Your task to perform on an android device: Open calendar and show me the first week of next month Image 0: 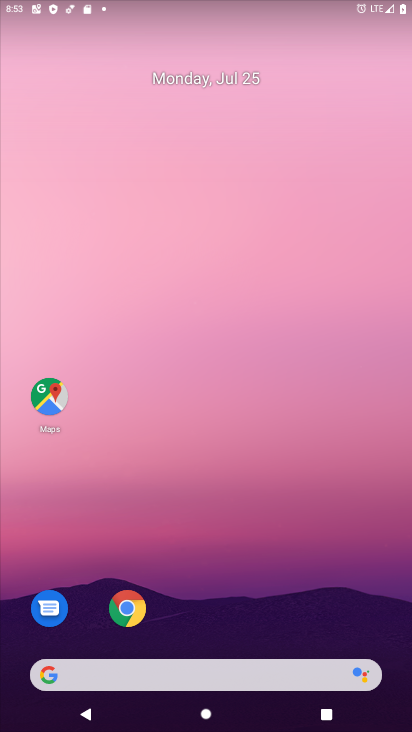
Step 0: drag from (233, 713) to (226, 127)
Your task to perform on an android device: Open calendar and show me the first week of next month Image 1: 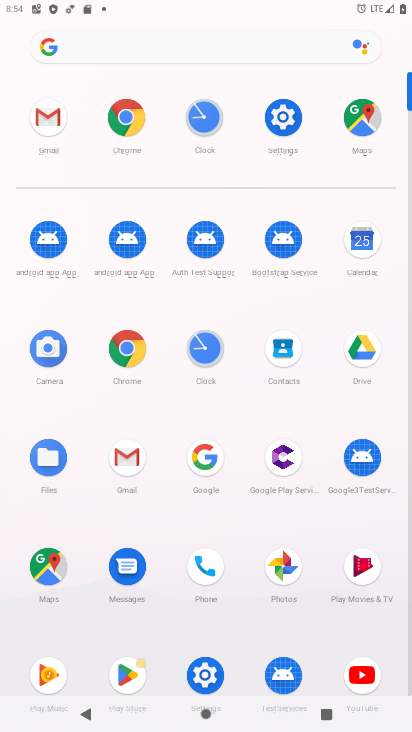
Step 1: click (359, 238)
Your task to perform on an android device: Open calendar and show me the first week of next month Image 2: 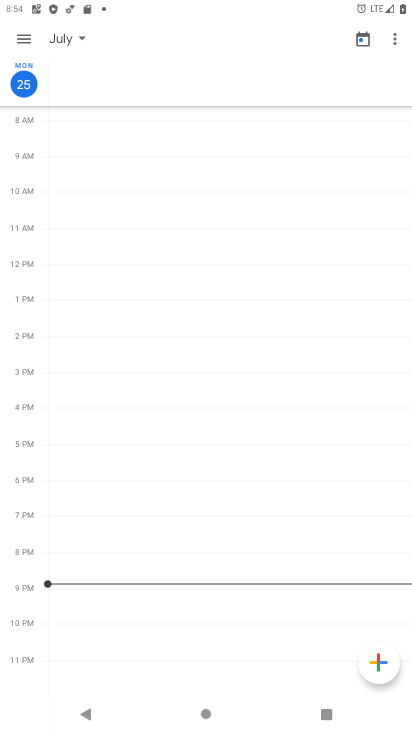
Step 2: click (83, 34)
Your task to perform on an android device: Open calendar and show me the first week of next month Image 3: 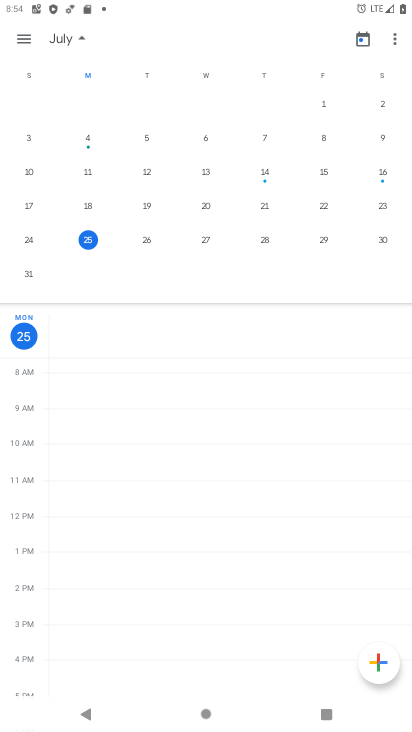
Step 3: drag from (378, 199) to (78, 209)
Your task to perform on an android device: Open calendar and show me the first week of next month Image 4: 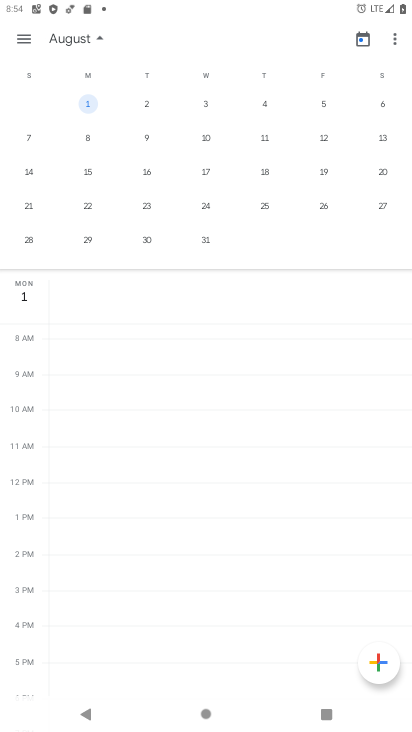
Step 4: click (25, 42)
Your task to perform on an android device: Open calendar and show me the first week of next month Image 5: 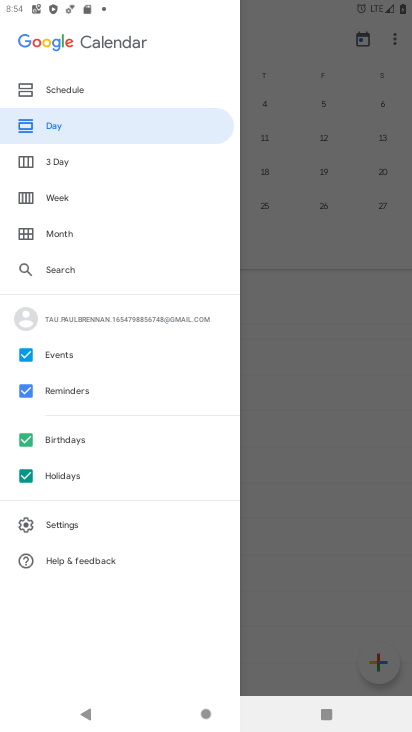
Step 5: click (59, 194)
Your task to perform on an android device: Open calendar and show me the first week of next month Image 6: 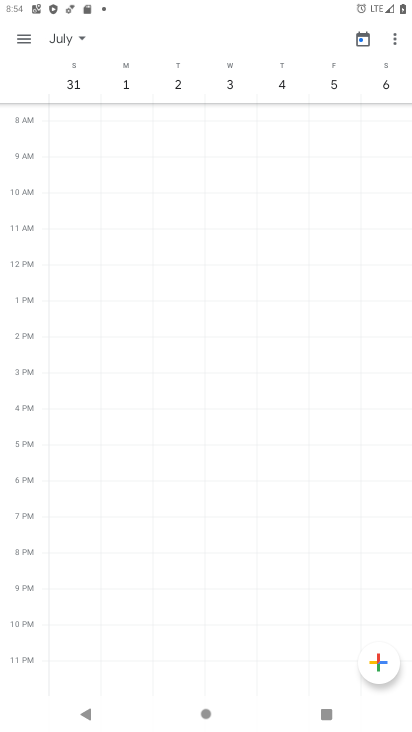
Step 6: task complete